Your task to perform on an android device: change keyboard looks Image 0: 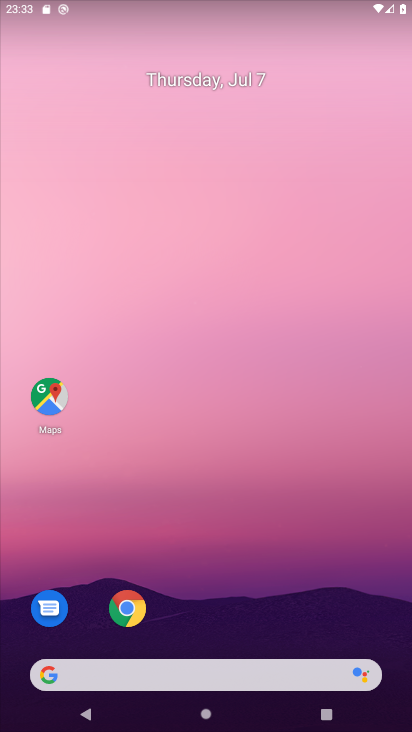
Step 0: drag from (256, 638) to (206, 229)
Your task to perform on an android device: change keyboard looks Image 1: 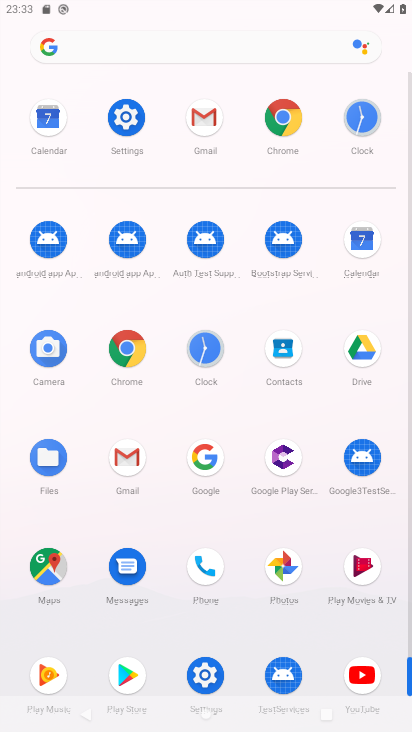
Step 1: click (117, 110)
Your task to perform on an android device: change keyboard looks Image 2: 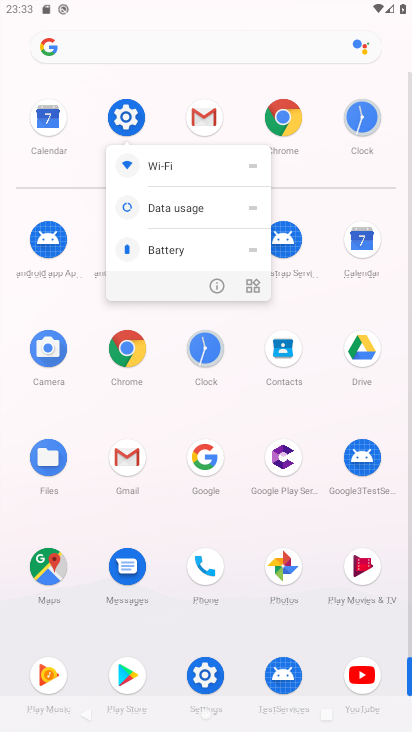
Step 2: click (130, 117)
Your task to perform on an android device: change keyboard looks Image 3: 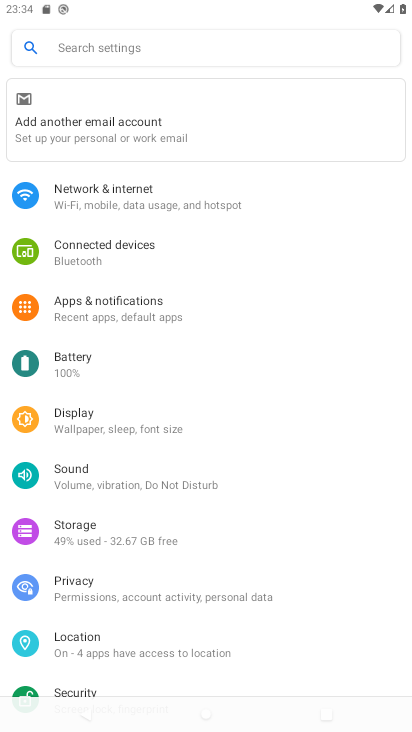
Step 3: drag from (139, 622) to (147, 368)
Your task to perform on an android device: change keyboard looks Image 4: 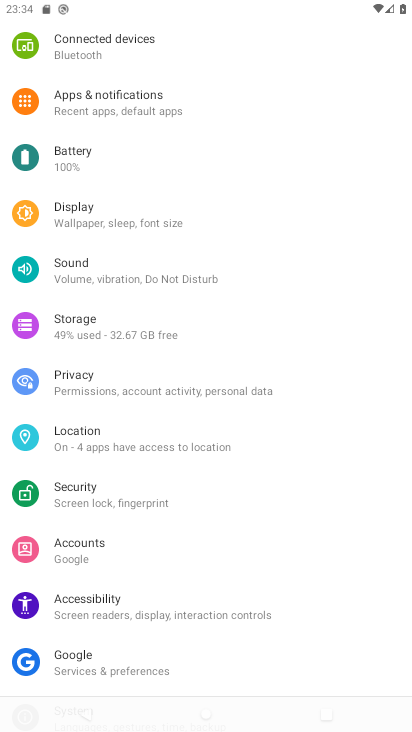
Step 4: click (150, 614)
Your task to perform on an android device: change keyboard looks Image 5: 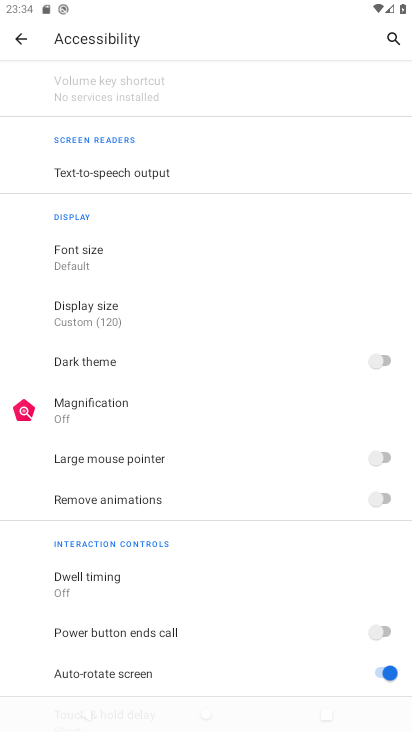
Step 5: click (22, 34)
Your task to perform on an android device: change keyboard looks Image 6: 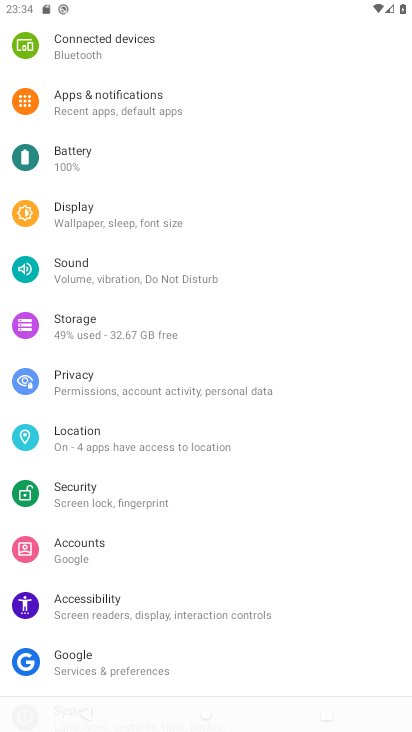
Step 6: drag from (164, 478) to (129, 350)
Your task to perform on an android device: change keyboard looks Image 7: 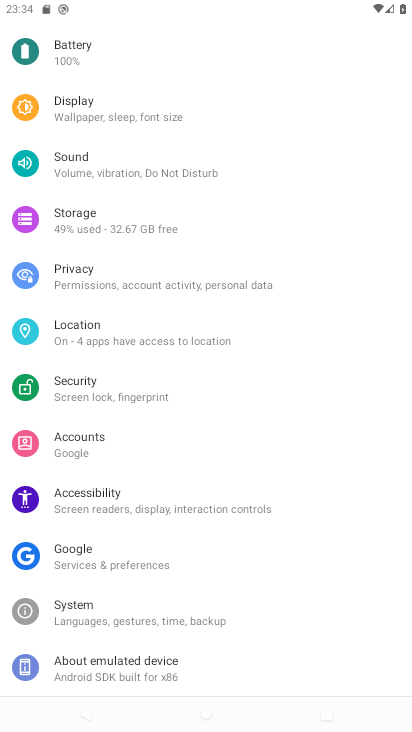
Step 7: drag from (151, 577) to (156, 400)
Your task to perform on an android device: change keyboard looks Image 8: 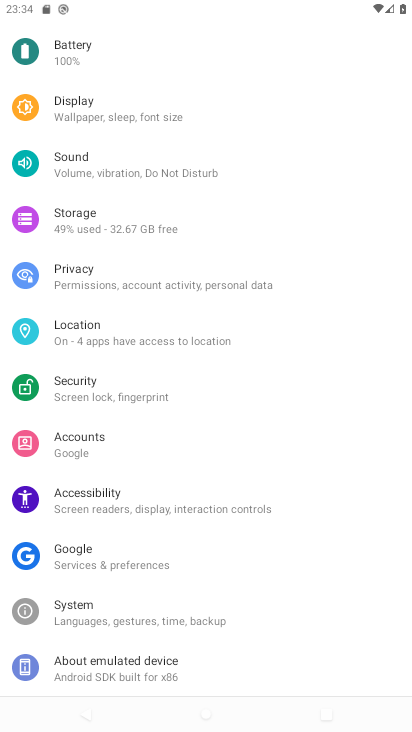
Step 8: click (174, 614)
Your task to perform on an android device: change keyboard looks Image 9: 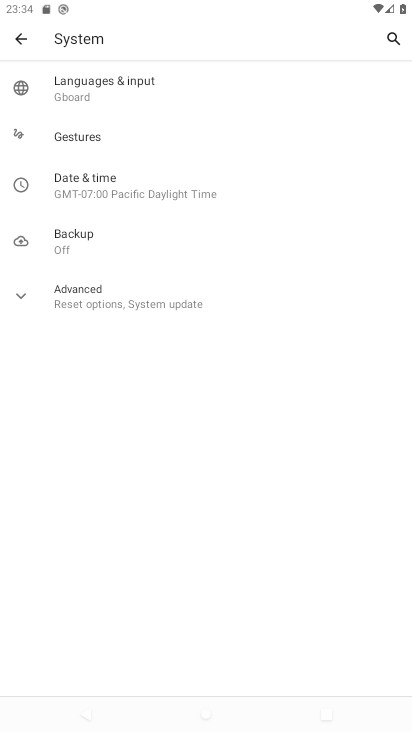
Step 9: click (117, 90)
Your task to perform on an android device: change keyboard looks Image 10: 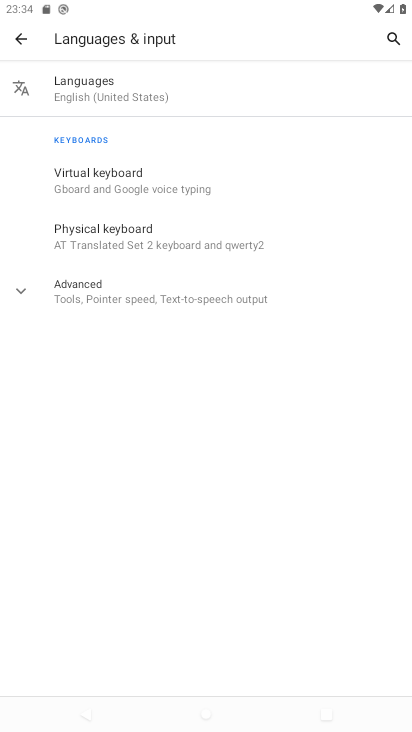
Step 10: click (137, 191)
Your task to perform on an android device: change keyboard looks Image 11: 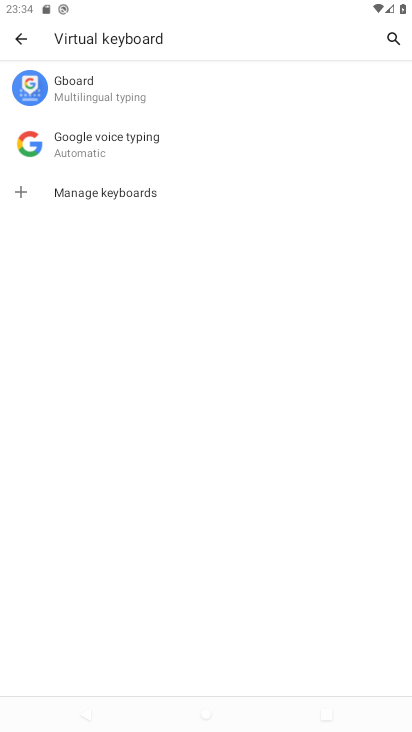
Step 11: click (119, 90)
Your task to perform on an android device: change keyboard looks Image 12: 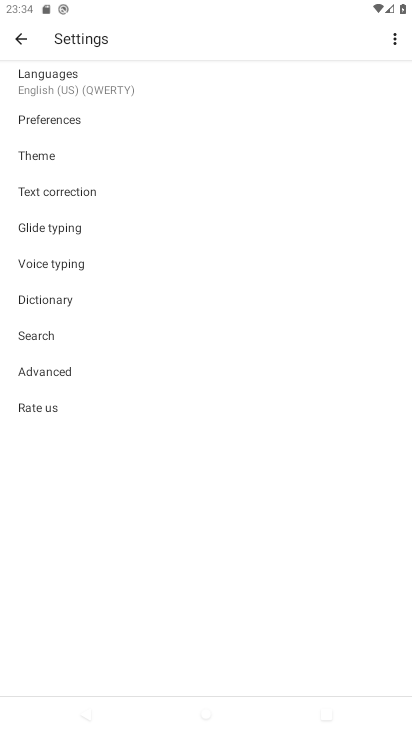
Step 12: click (57, 155)
Your task to perform on an android device: change keyboard looks Image 13: 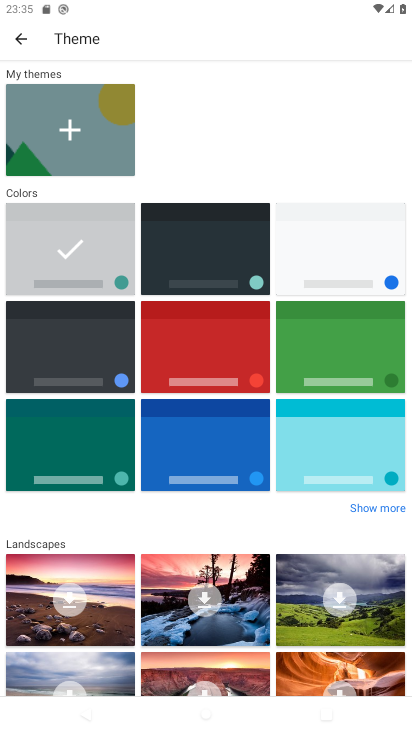
Step 13: click (207, 387)
Your task to perform on an android device: change keyboard looks Image 14: 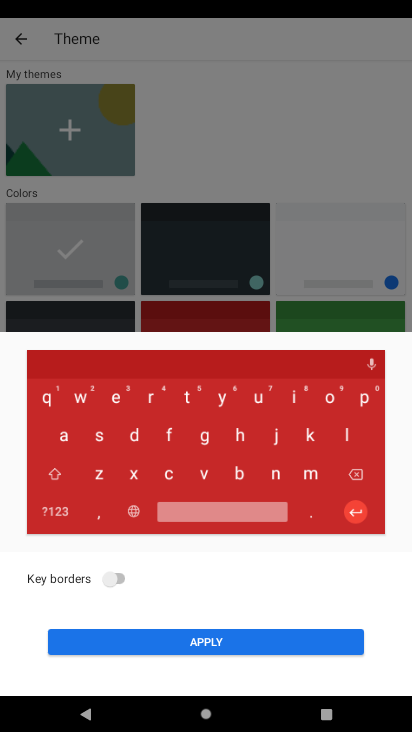
Step 14: click (234, 641)
Your task to perform on an android device: change keyboard looks Image 15: 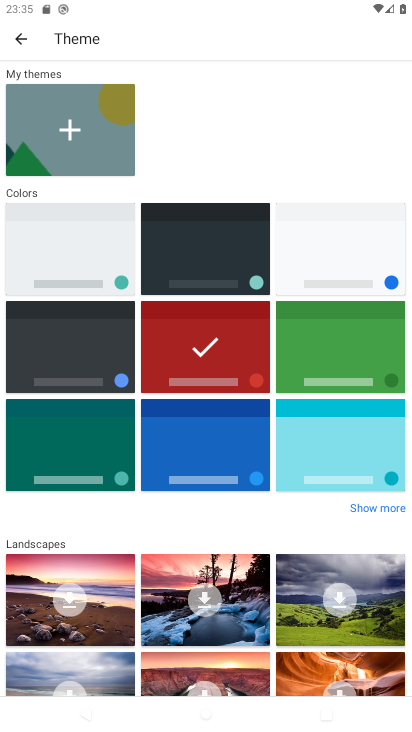
Step 15: task complete